Your task to perform on an android device: Show me productivity apps on the Play Store Image 0: 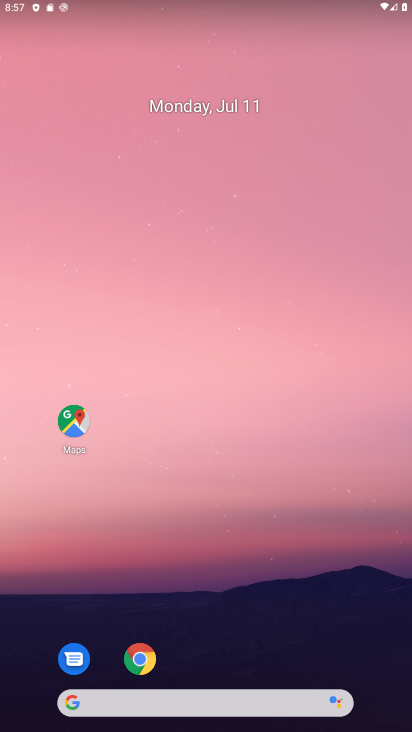
Step 0: drag from (224, 724) to (187, 176)
Your task to perform on an android device: Show me productivity apps on the Play Store Image 1: 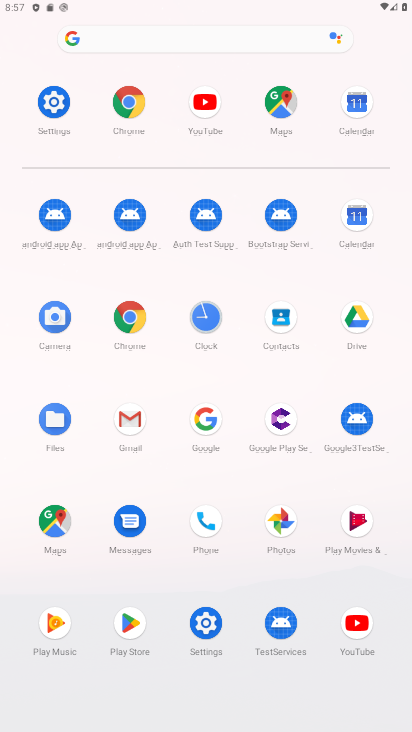
Step 1: click (133, 629)
Your task to perform on an android device: Show me productivity apps on the Play Store Image 2: 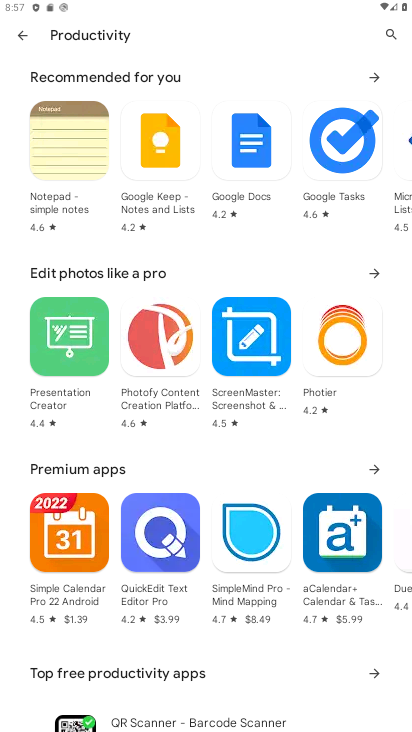
Step 2: task complete